Your task to perform on an android device: Open calendar and show me the fourth week of next month Image 0: 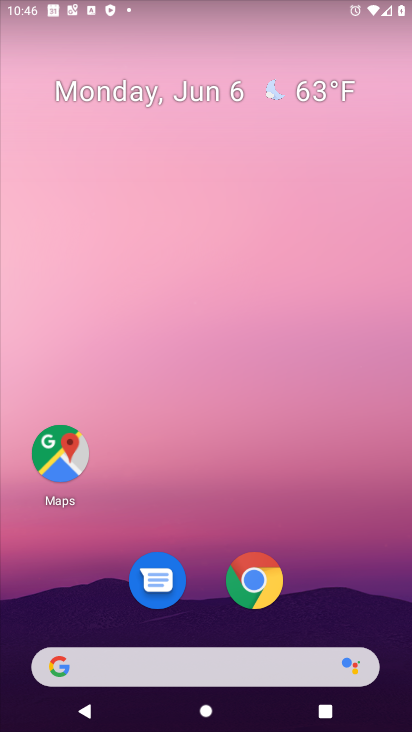
Step 0: drag from (330, 603) to (357, 17)
Your task to perform on an android device: Open calendar and show me the fourth week of next month Image 1: 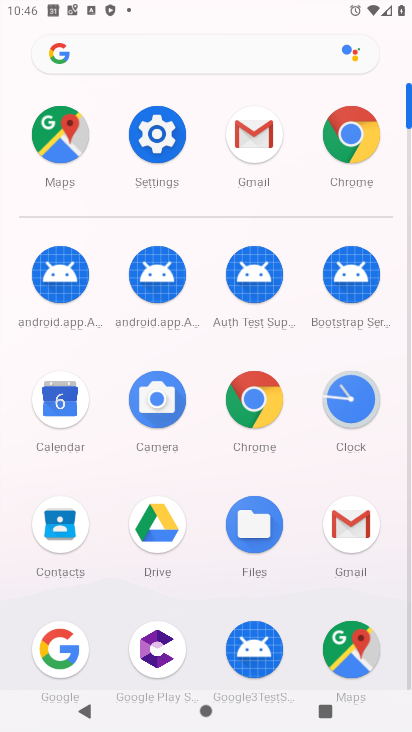
Step 1: click (56, 392)
Your task to perform on an android device: Open calendar and show me the fourth week of next month Image 2: 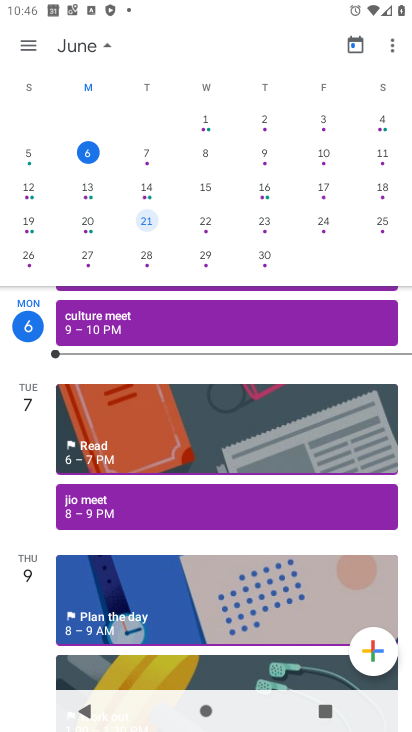
Step 2: drag from (361, 182) to (106, 248)
Your task to perform on an android device: Open calendar and show me the fourth week of next month Image 3: 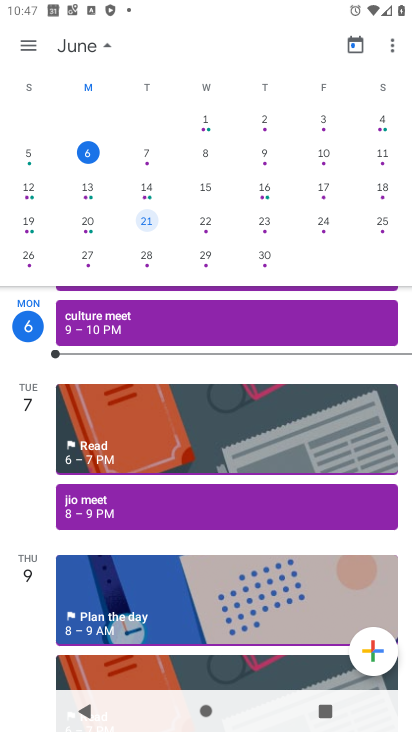
Step 3: click (145, 263)
Your task to perform on an android device: Open calendar and show me the fourth week of next month Image 4: 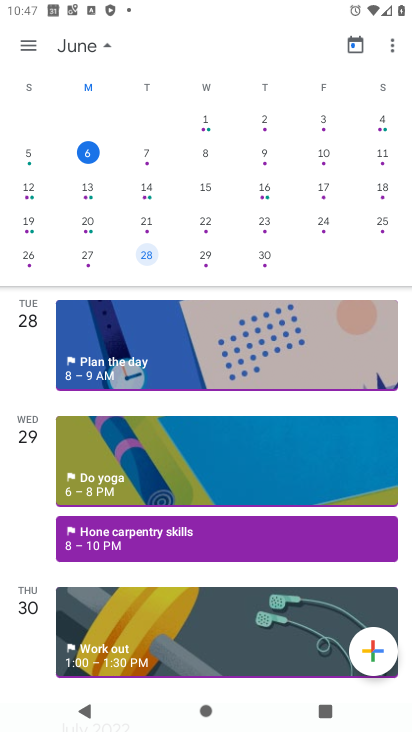
Step 4: task complete